Your task to perform on an android device: turn on notifications settings in the gmail app Image 0: 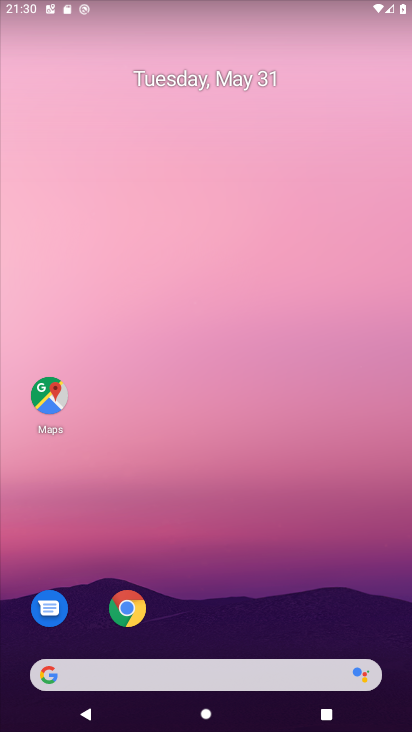
Step 0: drag from (268, 612) to (312, 188)
Your task to perform on an android device: turn on notifications settings in the gmail app Image 1: 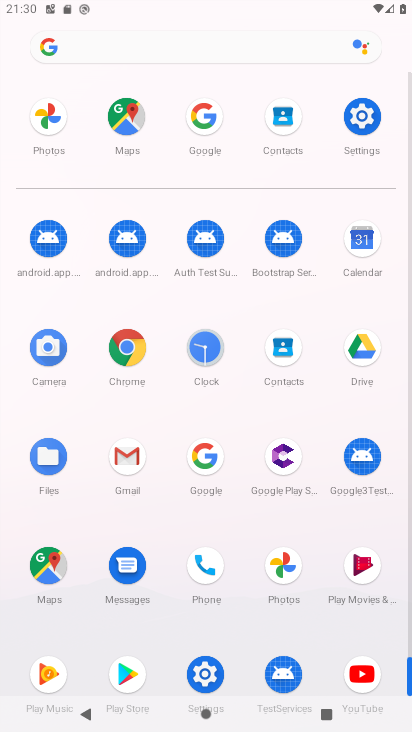
Step 1: click (127, 454)
Your task to perform on an android device: turn on notifications settings in the gmail app Image 2: 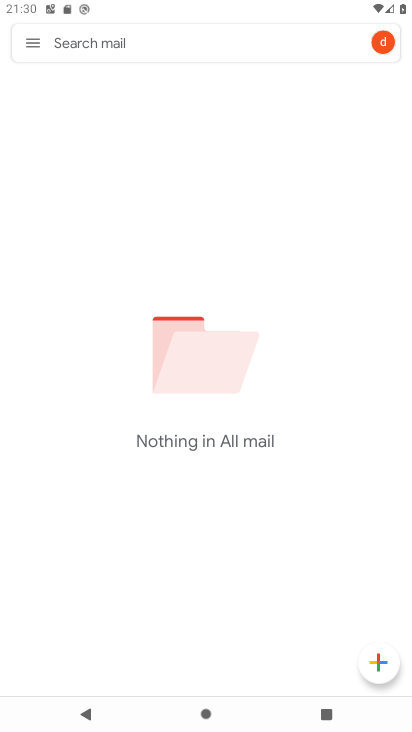
Step 2: click (35, 46)
Your task to perform on an android device: turn on notifications settings in the gmail app Image 3: 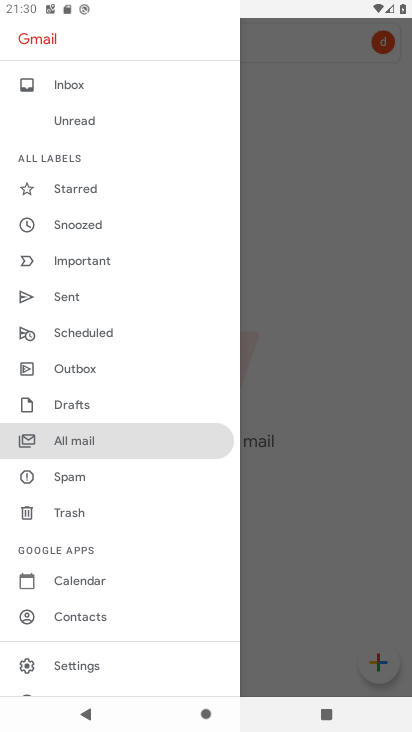
Step 3: click (81, 659)
Your task to perform on an android device: turn on notifications settings in the gmail app Image 4: 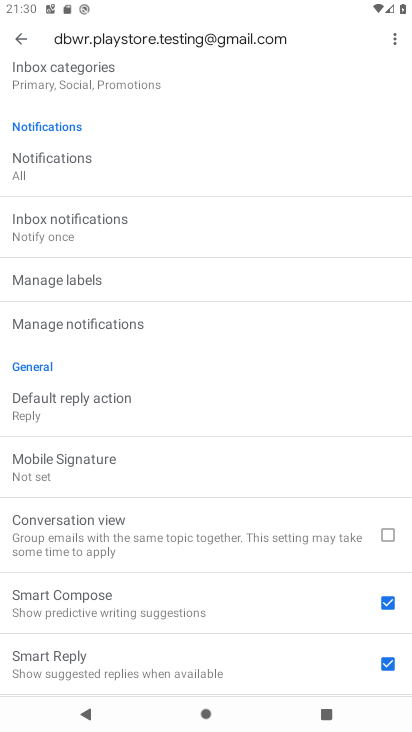
Step 4: click (98, 329)
Your task to perform on an android device: turn on notifications settings in the gmail app Image 5: 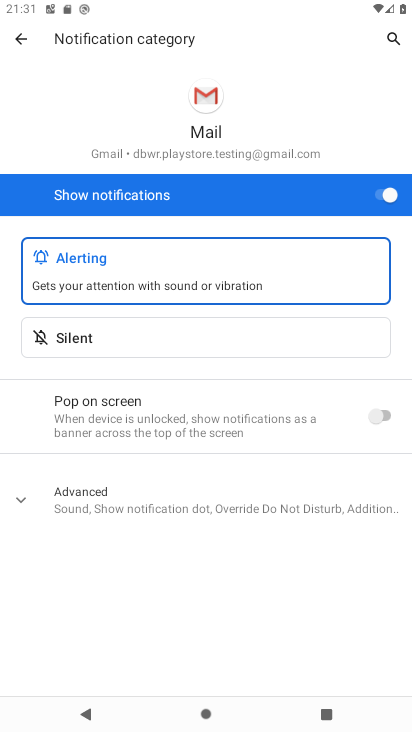
Step 5: task complete